Your task to perform on an android device: toggle location history Image 0: 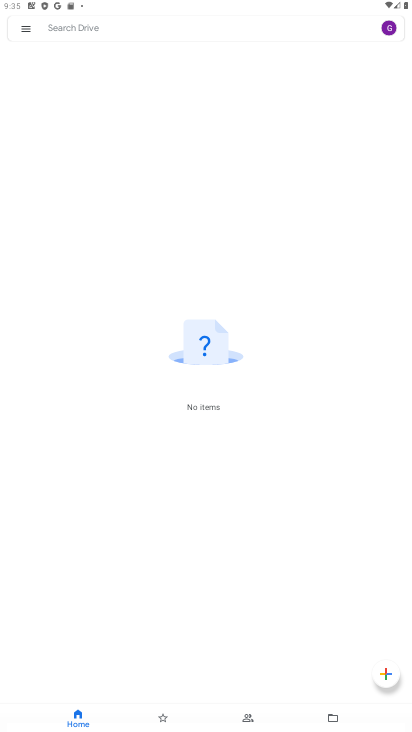
Step 0: task complete